Your task to perform on an android device: Open accessibility settings Image 0: 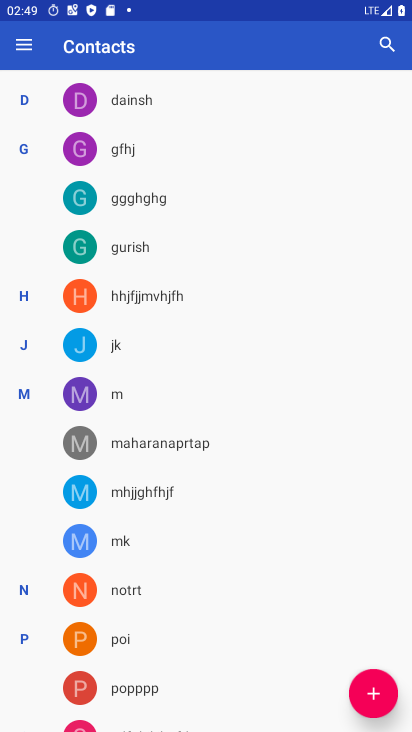
Step 0: press home button
Your task to perform on an android device: Open accessibility settings Image 1: 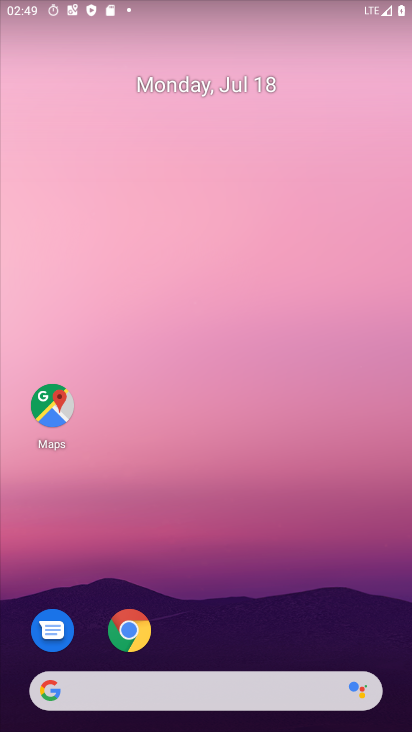
Step 1: drag from (182, 636) to (229, 166)
Your task to perform on an android device: Open accessibility settings Image 2: 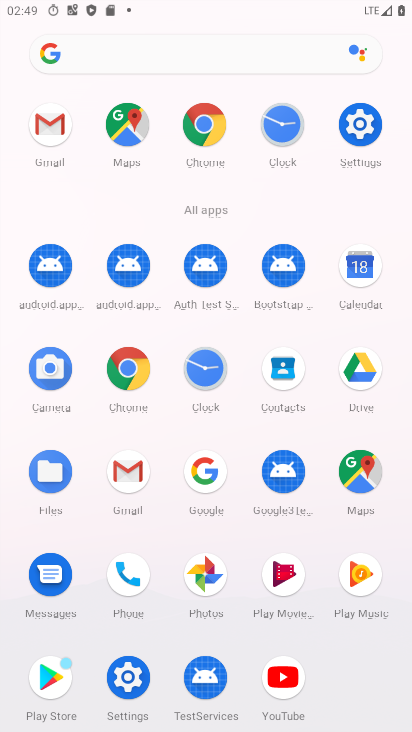
Step 2: click (355, 159)
Your task to perform on an android device: Open accessibility settings Image 3: 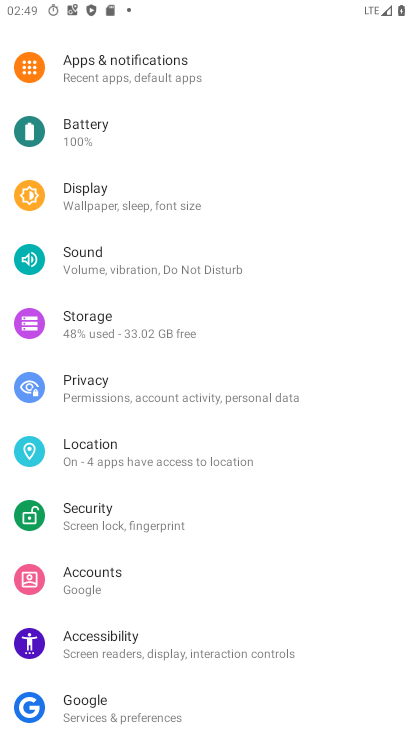
Step 3: click (150, 633)
Your task to perform on an android device: Open accessibility settings Image 4: 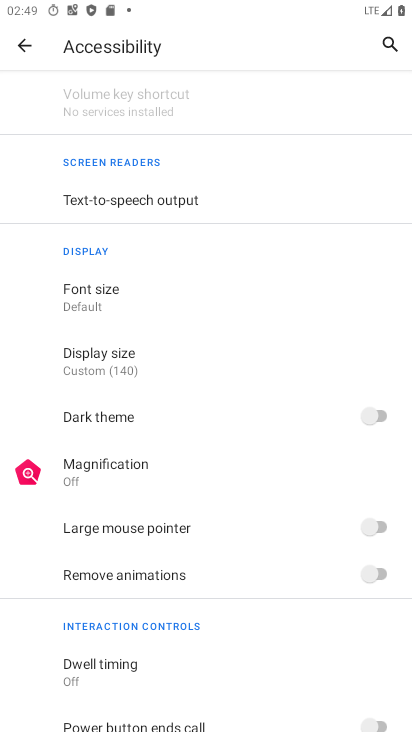
Step 4: task complete